Your task to perform on an android device: Go to Maps Image 0: 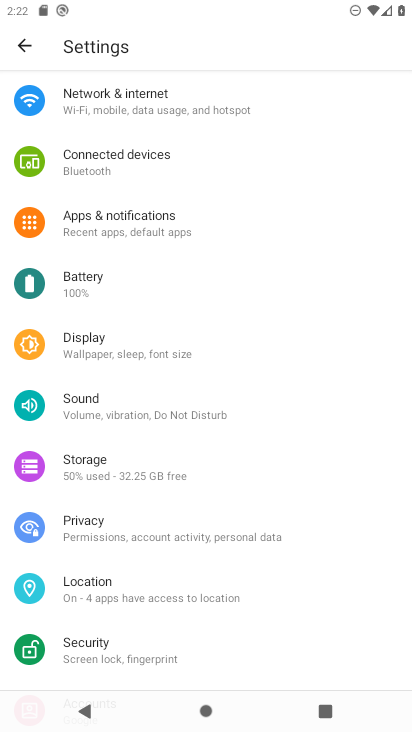
Step 0: press home button
Your task to perform on an android device: Go to Maps Image 1: 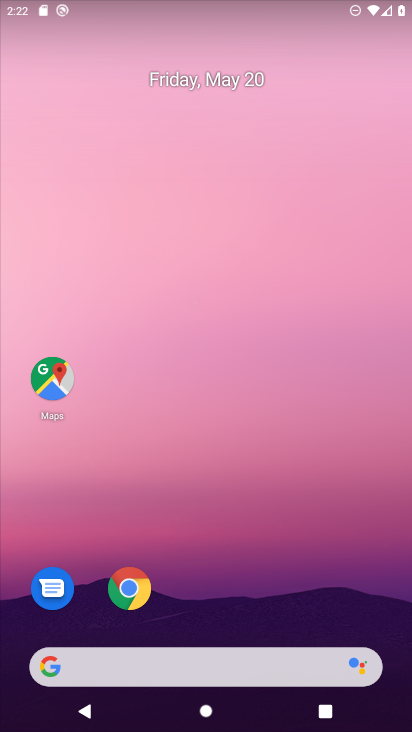
Step 1: click (46, 376)
Your task to perform on an android device: Go to Maps Image 2: 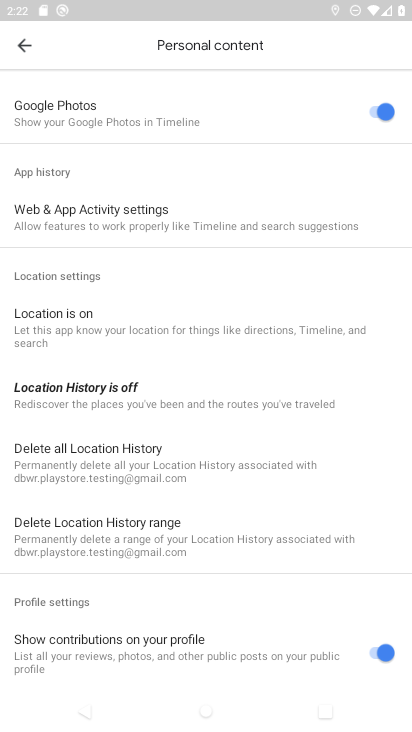
Step 2: task complete